Your task to perform on an android device: change text size in settings app Image 0: 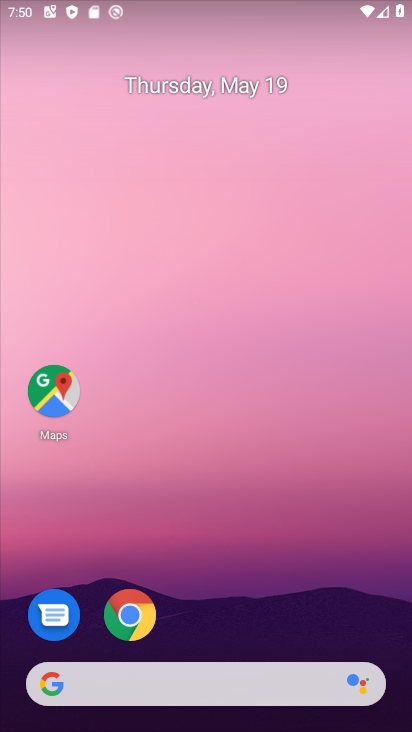
Step 0: drag from (228, 673) to (316, 95)
Your task to perform on an android device: change text size in settings app Image 1: 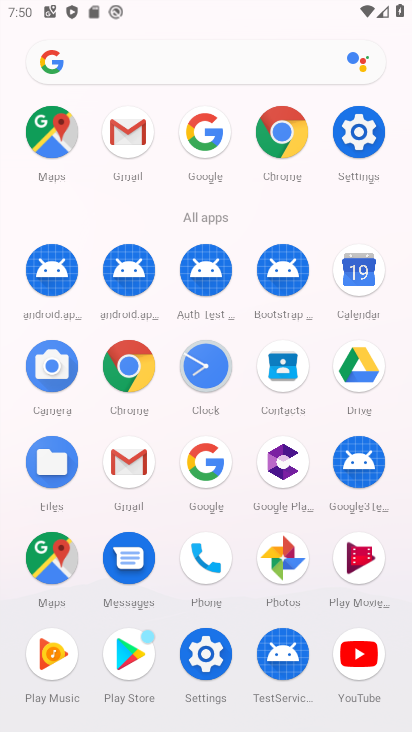
Step 1: click (361, 166)
Your task to perform on an android device: change text size in settings app Image 2: 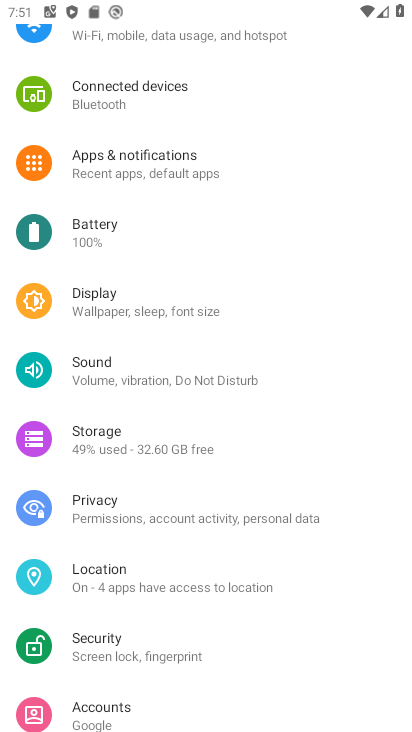
Step 2: click (219, 298)
Your task to perform on an android device: change text size in settings app Image 3: 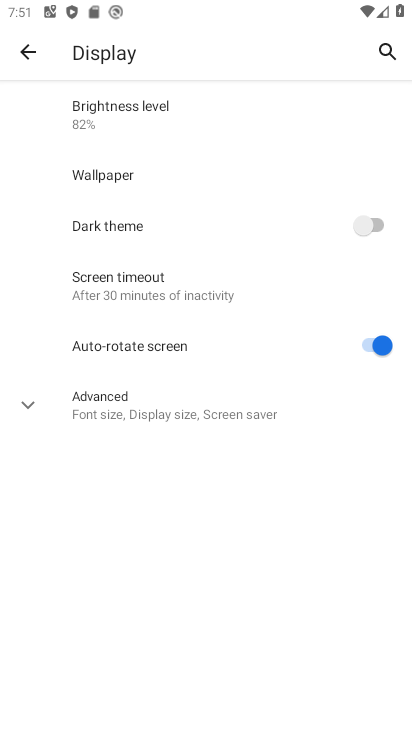
Step 3: click (217, 407)
Your task to perform on an android device: change text size in settings app Image 4: 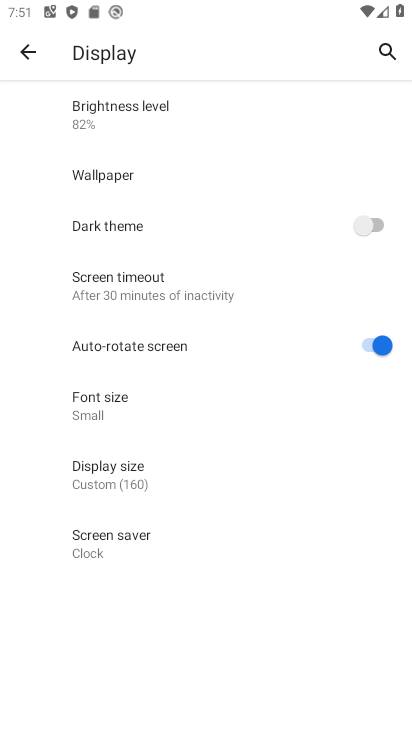
Step 4: click (103, 404)
Your task to perform on an android device: change text size in settings app Image 5: 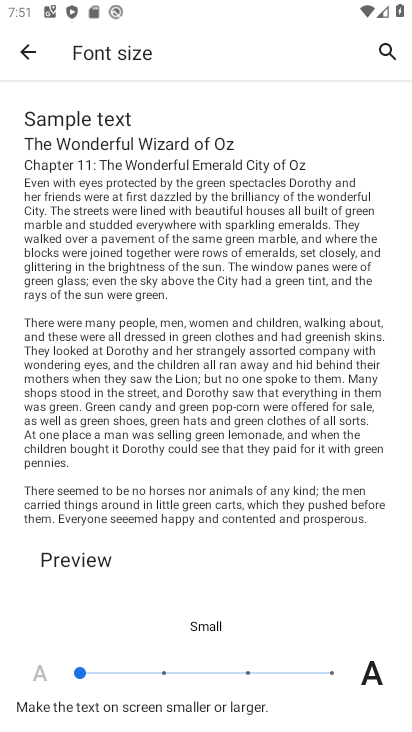
Step 5: click (158, 673)
Your task to perform on an android device: change text size in settings app Image 6: 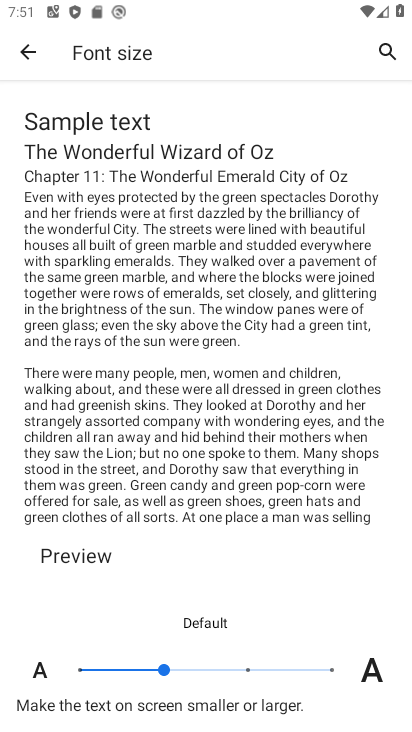
Step 6: task complete